Your task to perform on an android device: Is it going to rain tomorrow? Image 0: 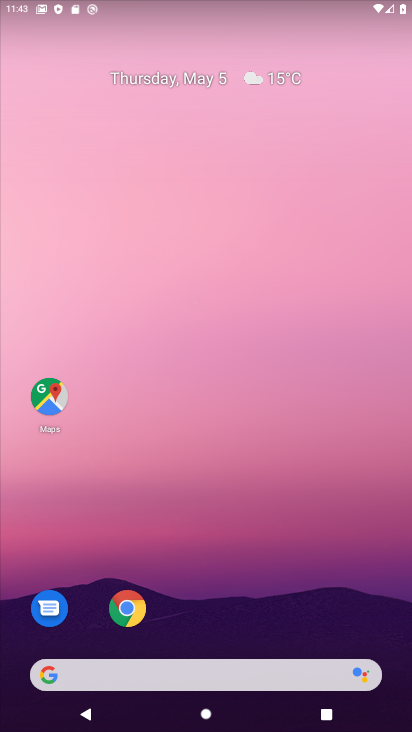
Step 0: click (131, 615)
Your task to perform on an android device: Is it going to rain tomorrow? Image 1: 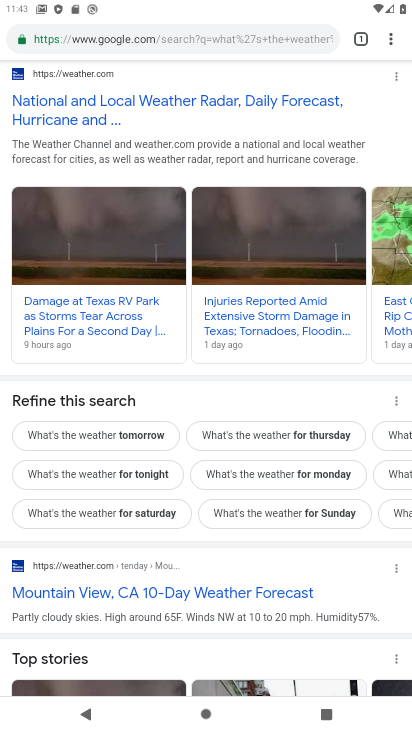
Step 1: click (184, 39)
Your task to perform on an android device: Is it going to rain tomorrow? Image 2: 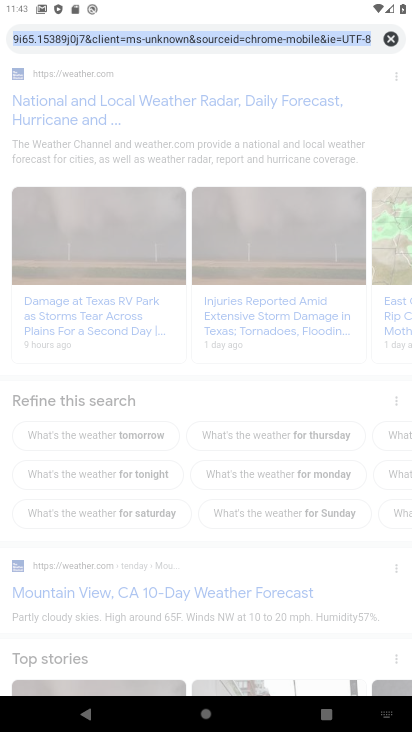
Step 2: type "is it going to rain tomorrow"
Your task to perform on an android device: Is it going to rain tomorrow? Image 3: 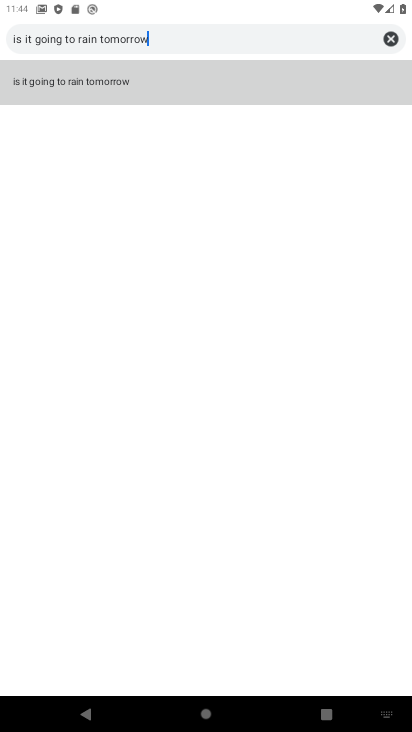
Step 3: click (98, 89)
Your task to perform on an android device: Is it going to rain tomorrow? Image 4: 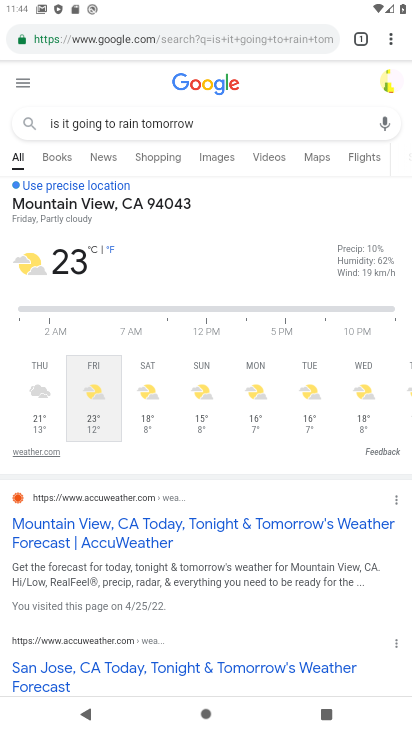
Step 4: click (135, 429)
Your task to perform on an android device: Is it going to rain tomorrow? Image 5: 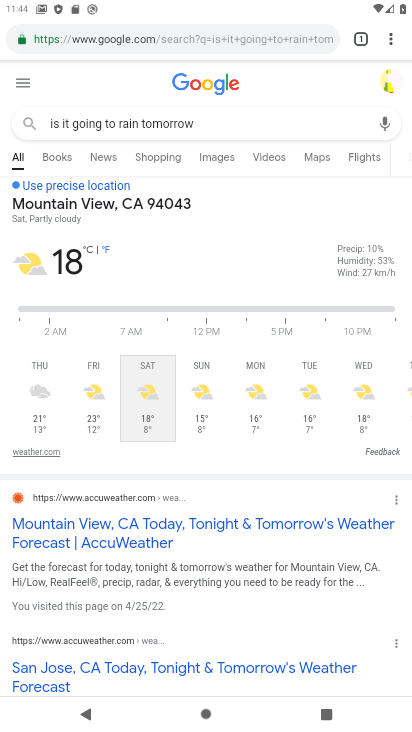
Step 5: task complete